Your task to perform on an android device: What's the weather going to be tomorrow? Image 0: 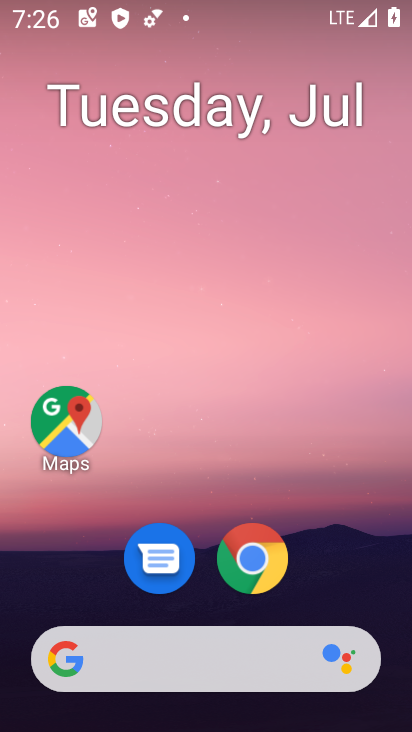
Step 0: click (177, 644)
Your task to perform on an android device: What's the weather going to be tomorrow? Image 1: 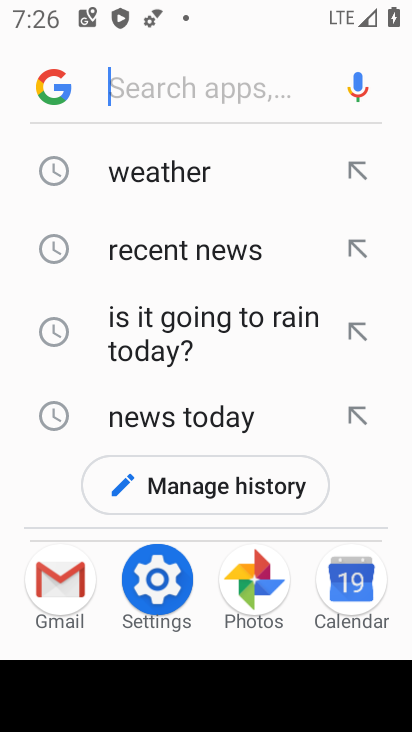
Step 1: click (140, 182)
Your task to perform on an android device: What's the weather going to be tomorrow? Image 2: 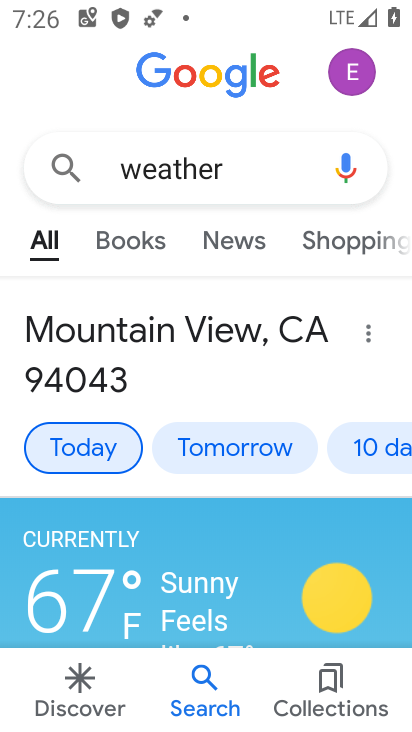
Step 2: click (217, 445)
Your task to perform on an android device: What's the weather going to be tomorrow? Image 3: 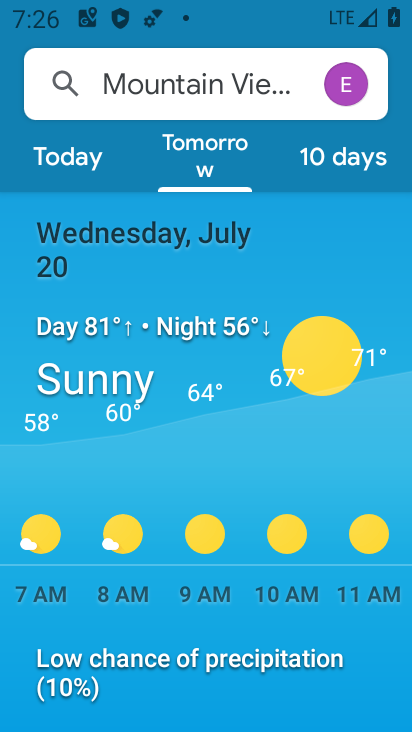
Step 3: task complete